Your task to perform on an android device: Go to network settings Image 0: 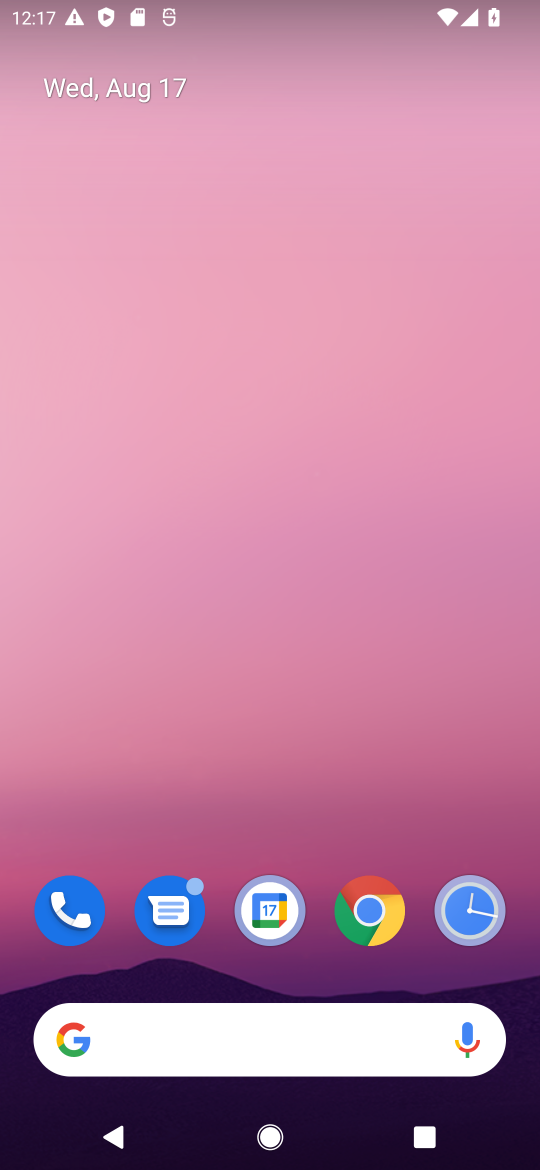
Step 0: drag from (264, 957) to (403, 23)
Your task to perform on an android device: Go to network settings Image 1: 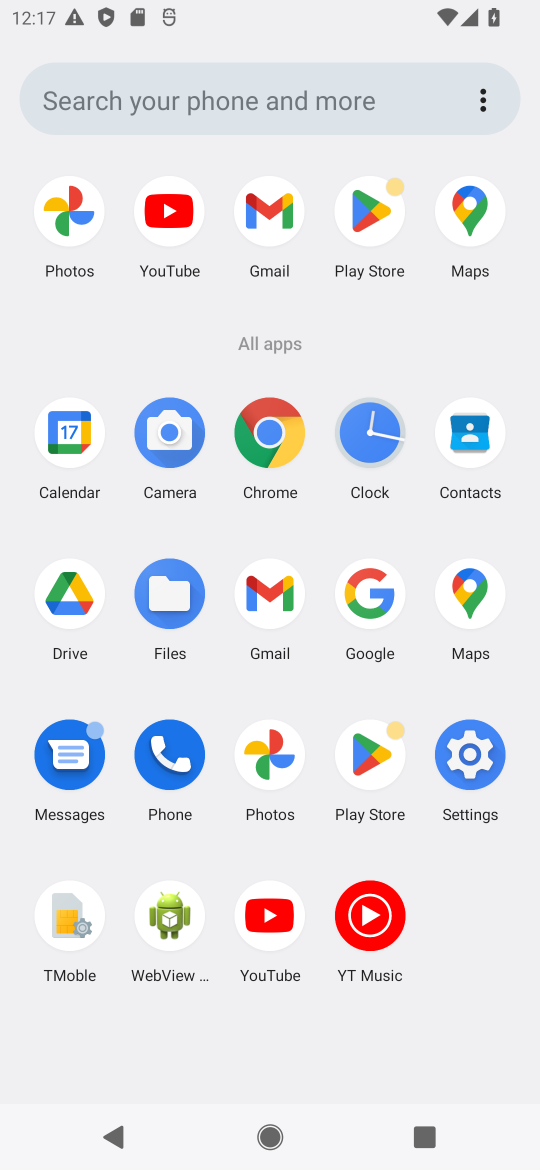
Step 1: click (478, 758)
Your task to perform on an android device: Go to network settings Image 2: 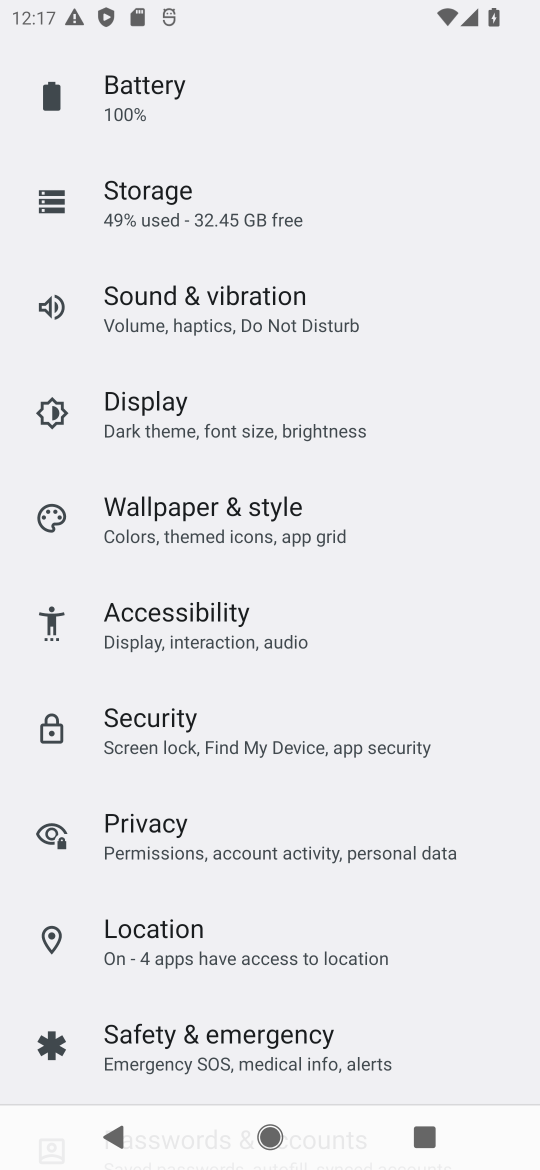
Step 2: drag from (284, 191) to (290, 1026)
Your task to perform on an android device: Go to network settings Image 3: 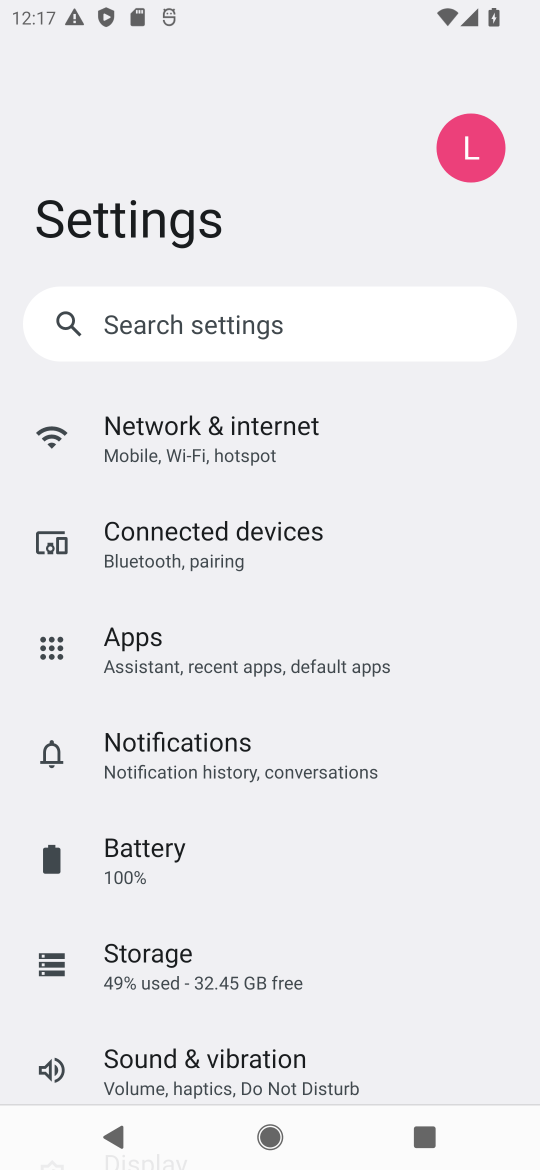
Step 3: click (223, 427)
Your task to perform on an android device: Go to network settings Image 4: 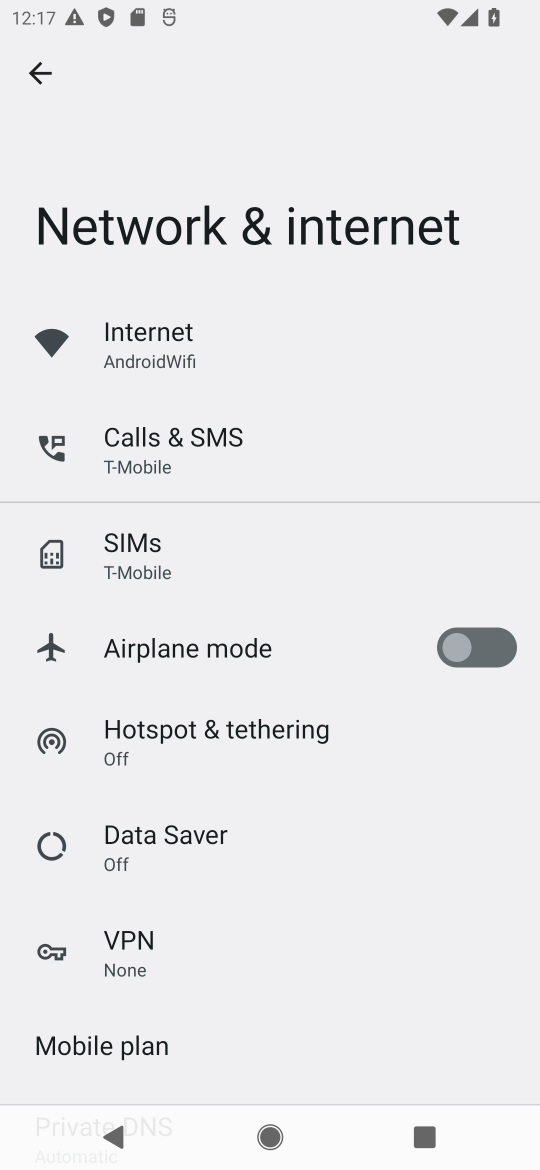
Step 4: task complete